Your task to perform on an android device: toggle pop-ups in chrome Image 0: 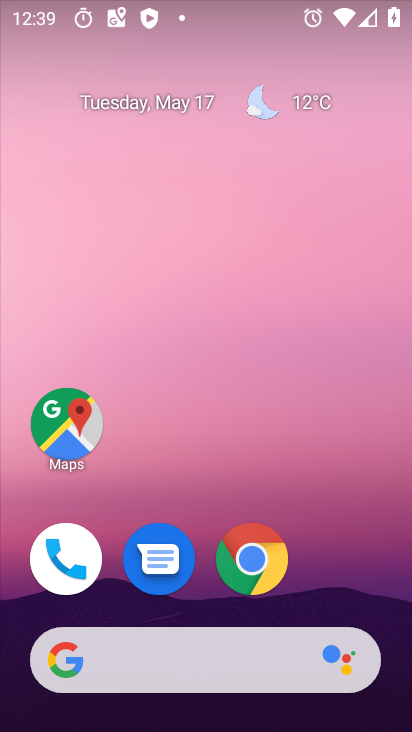
Step 0: click (254, 561)
Your task to perform on an android device: toggle pop-ups in chrome Image 1: 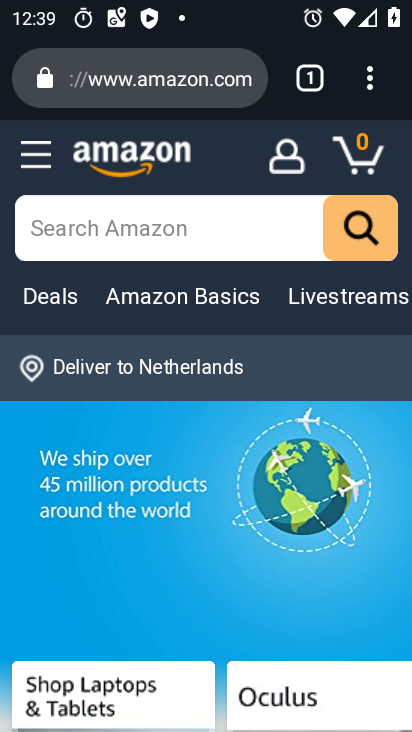
Step 1: drag from (373, 85) to (199, 606)
Your task to perform on an android device: toggle pop-ups in chrome Image 2: 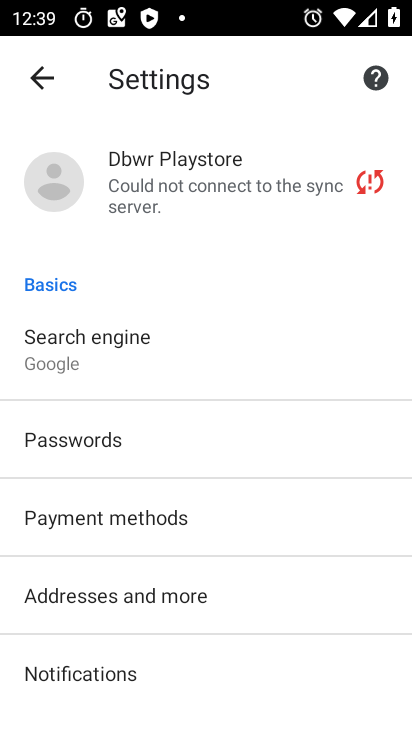
Step 2: drag from (277, 648) to (325, 180)
Your task to perform on an android device: toggle pop-ups in chrome Image 3: 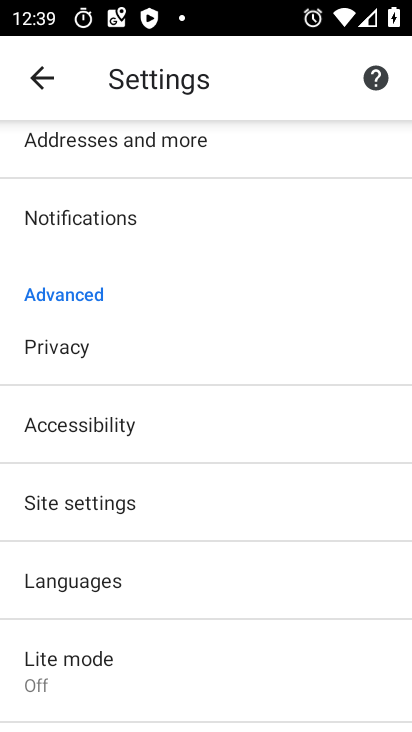
Step 3: drag from (218, 528) to (255, 302)
Your task to perform on an android device: toggle pop-ups in chrome Image 4: 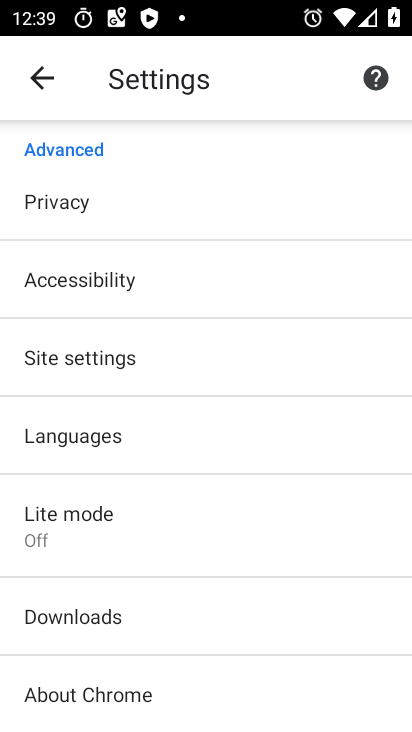
Step 4: click (78, 349)
Your task to perform on an android device: toggle pop-ups in chrome Image 5: 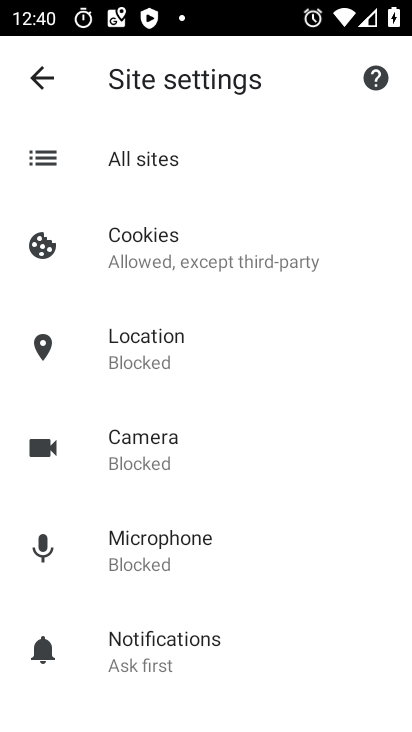
Step 5: drag from (278, 561) to (307, 137)
Your task to perform on an android device: toggle pop-ups in chrome Image 6: 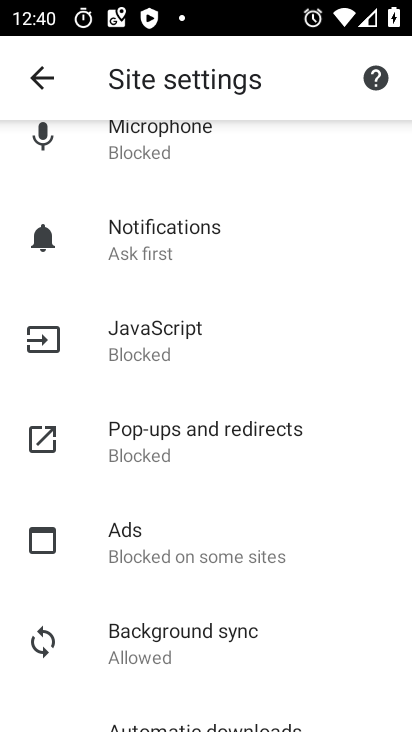
Step 6: click (246, 443)
Your task to perform on an android device: toggle pop-ups in chrome Image 7: 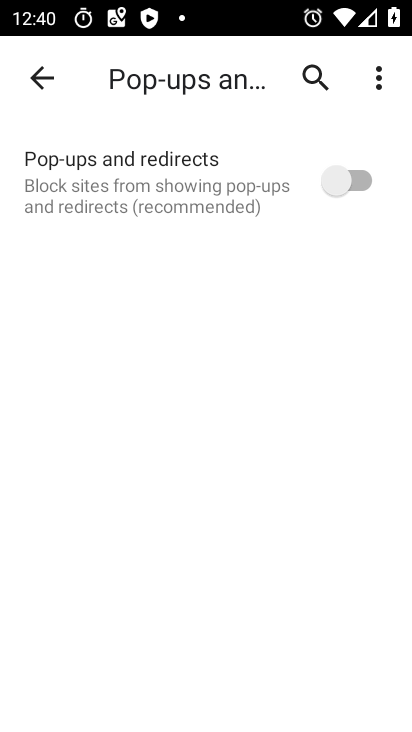
Step 7: click (314, 171)
Your task to perform on an android device: toggle pop-ups in chrome Image 8: 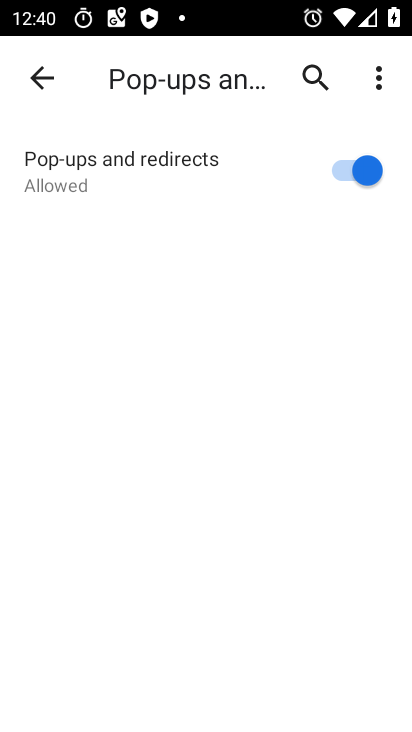
Step 8: task complete